Your task to perform on an android device: turn off smart reply in the gmail app Image 0: 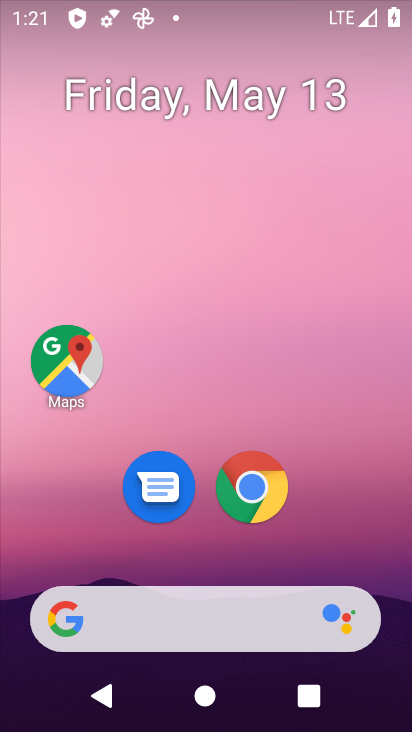
Step 0: drag from (324, 515) to (269, 48)
Your task to perform on an android device: turn off smart reply in the gmail app Image 1: 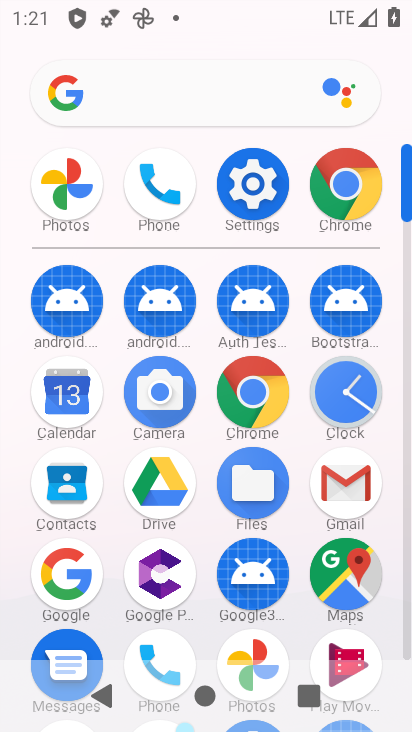
Step 1: click (339, 522)
Your task to perform on an android device: turn off smart reply in the gmail app Image 2: 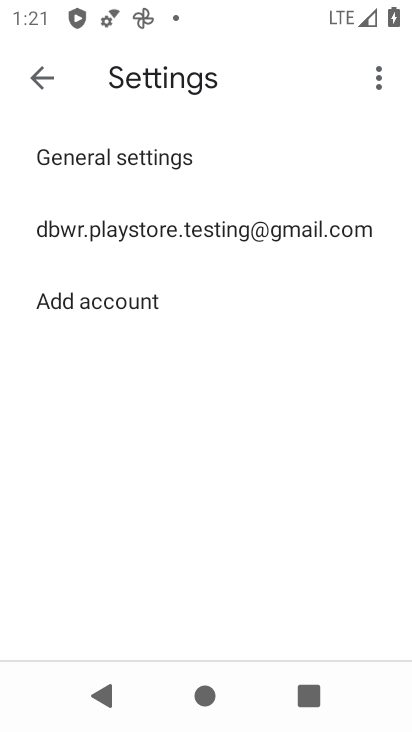
Step 2: click (163, 218)
Your task to perform on an android device: turn off smart reply in the gmail app Image 3: 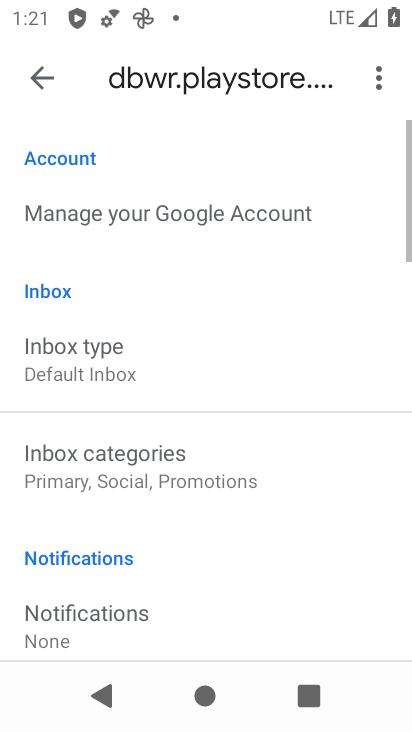
Step 3: drag from (285, 641) to (291, 297)
Your task to perform on an android device: turn off smart reply in the gmail app Image 4: 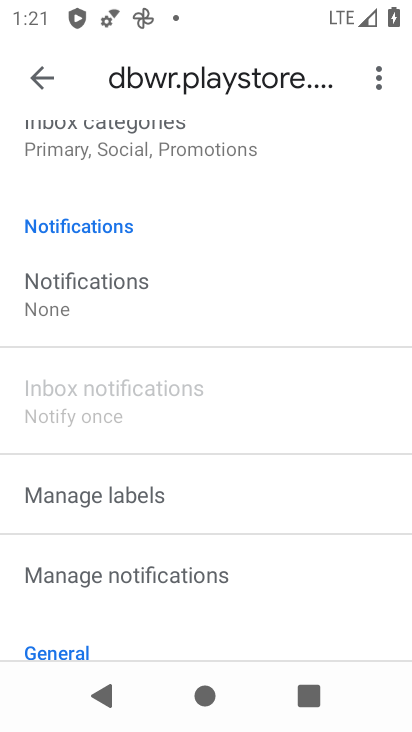
Step 4: drag from (308, 638) to (333, 344)
Your task to perform on an android device: turn off smart reply in the gmail app Image 5: 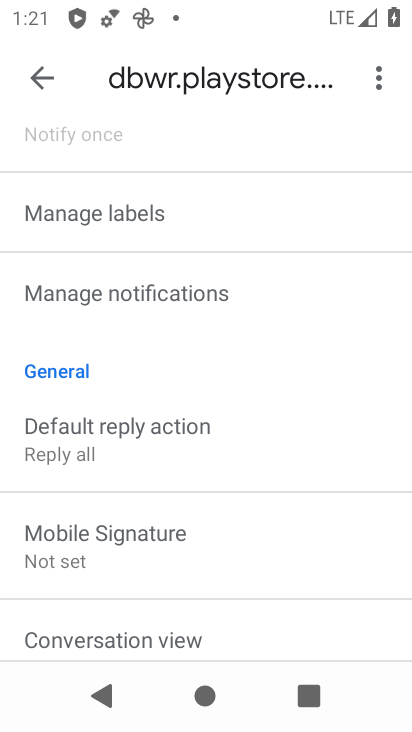
Step 5: drag from (277, 559) to (304, 294)
Your task to perform on an android device: turn off smart reply in the gmail app Image 6: 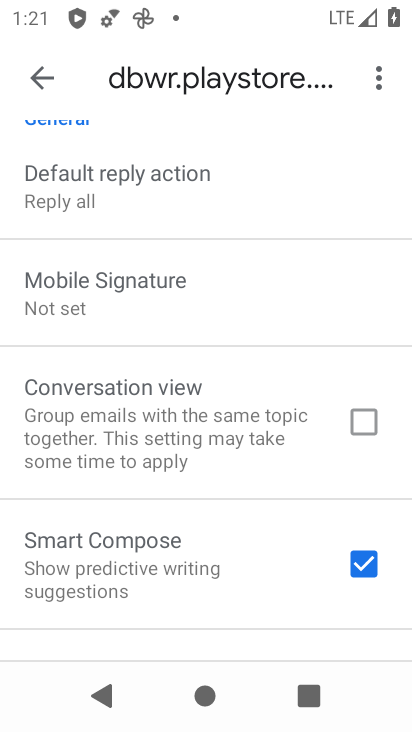
Step 6: drag from (218, 507) to (256, 278)
Your task to perform on an android device: turn off smart reply in the gmail app Image 7: 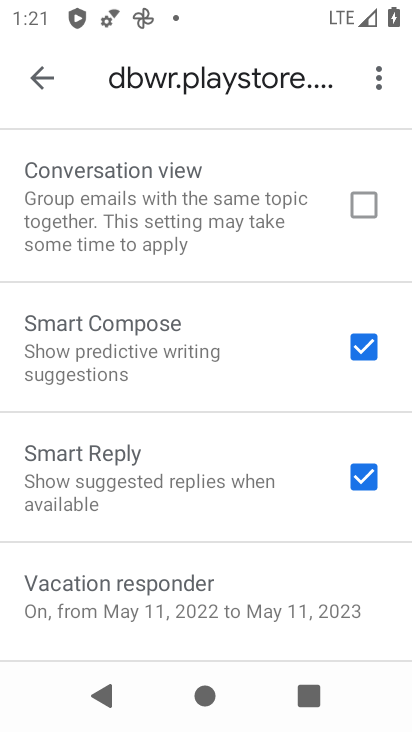
Step 7: click (369, 482)
Your task to perform on an android device: turn off smart reply in the gmail app Image 8: 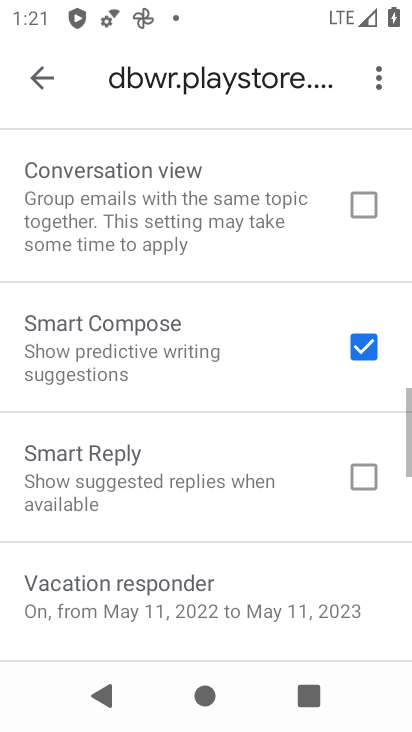
Step 8: task complete